Your task to perform on an android device: set the timer Image 0: 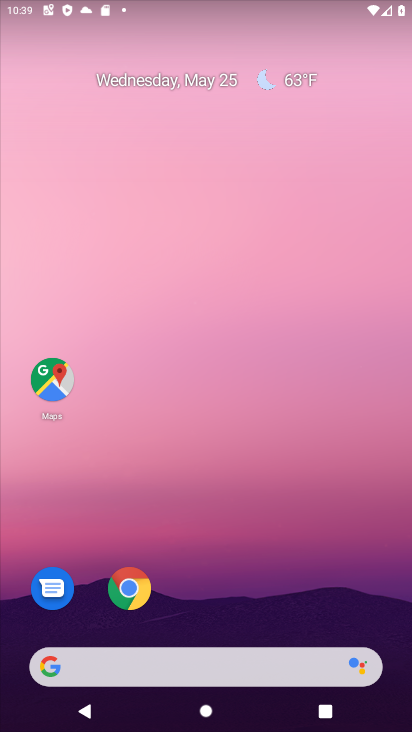
Step 0: drag from (259, 589) to (255, 123)
Your task to perform on an android device: set the timer Image 1: 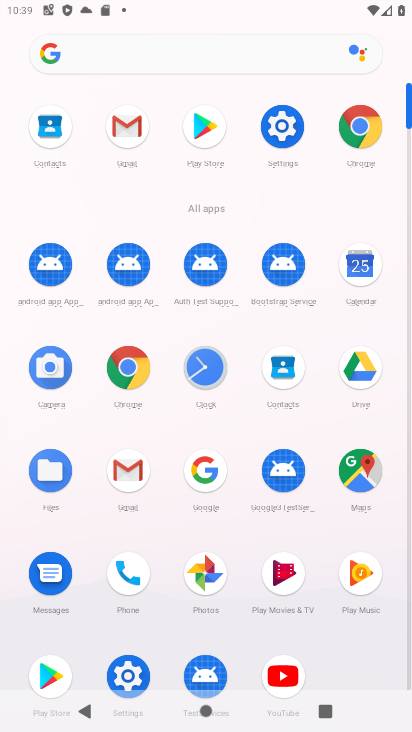
Step 1: drag from (325, 647) to (312, 439)
Your task to perform on an android device: set the timer Image 2: 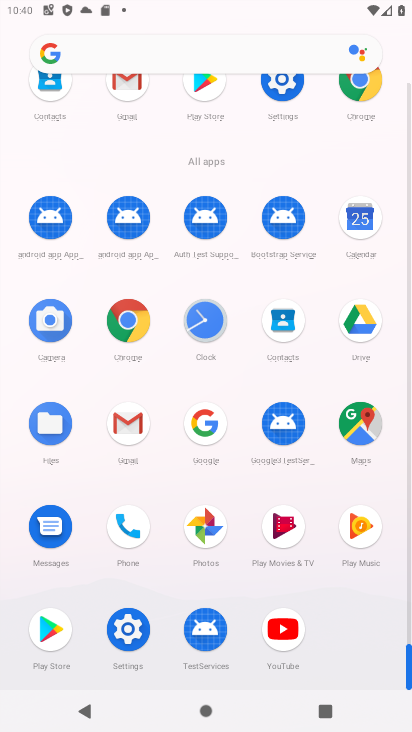
Step 2: click (202, 316)
Your task to perform on an android device: set the timer Image 3: 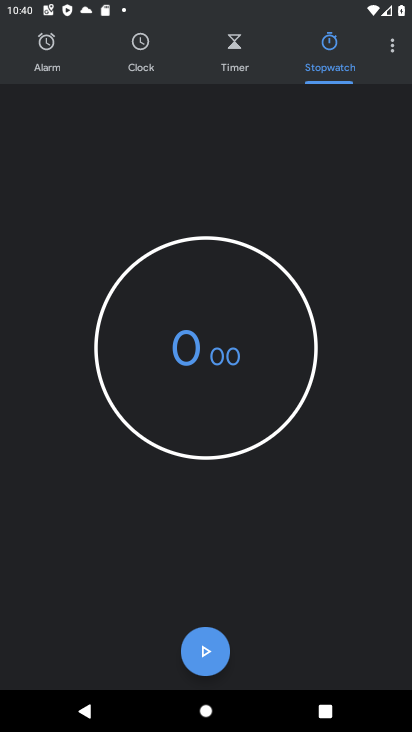
Step 3: click (242, 56)
Your task to perform on an android device: set the timer Image 4: 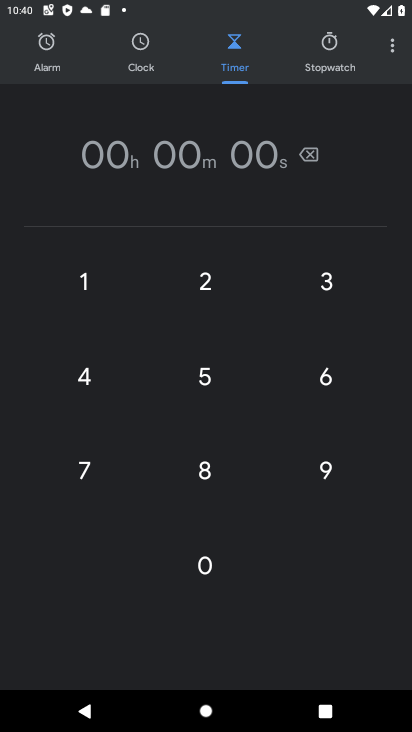
Step 4: click (211, 276)
Your task to perform on an android device: set the timer Image 5: 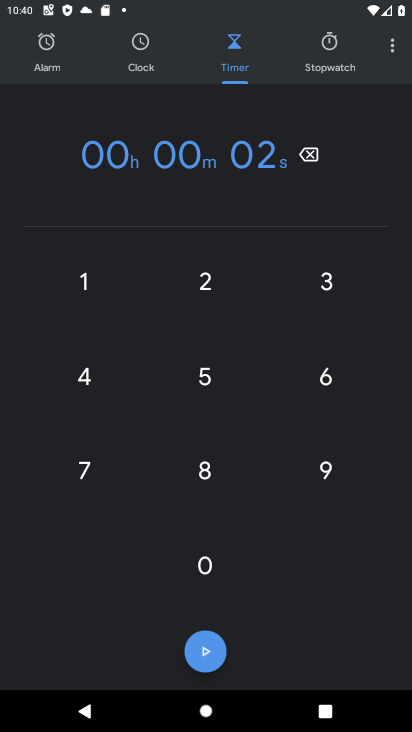
Step 5: click (210, 398)
Your task to perform on an android device: set the timer Image 6: 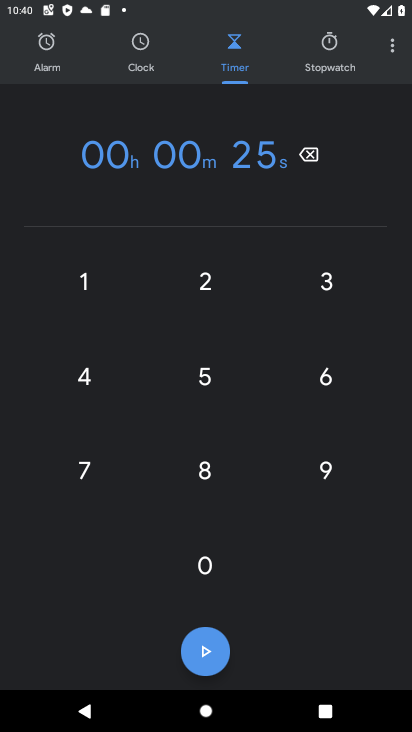
Step 6: click (327, 395)
Your task to perform on an android device: set the timer Image 7: 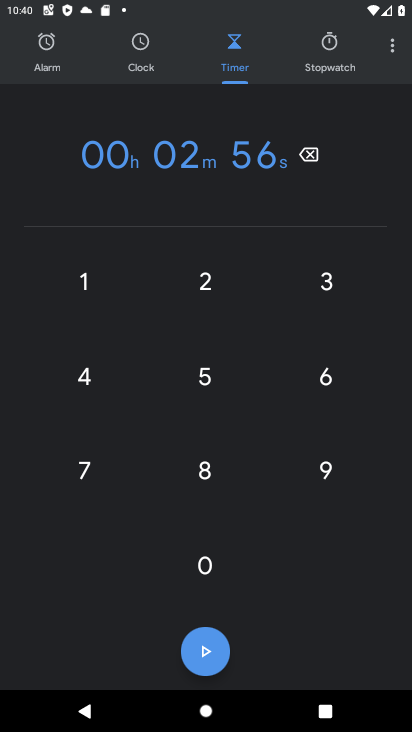
Step 7: task complete